Your task to perform on an android device: turn on showing notifications on the lock screen Image 0: 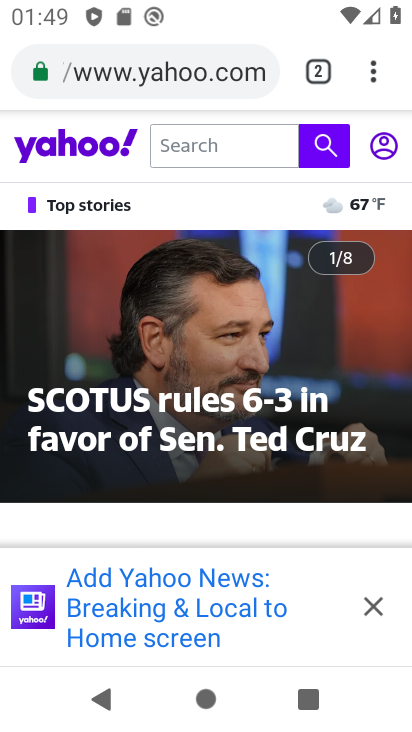
Step 0: press home button
Your task to perform on an android device: turn on showing notifications on the lock screen Image 1: 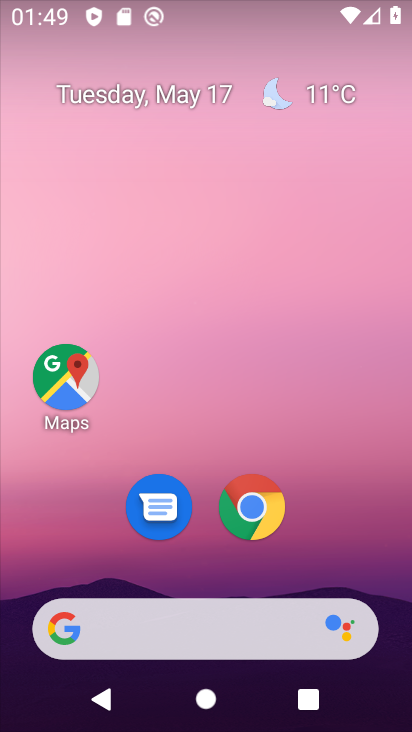
Step 1: drag from (195, 571) to (162, 161)
Your task to perform on an android device: turn on showing notifications on the lock screen Image 2: 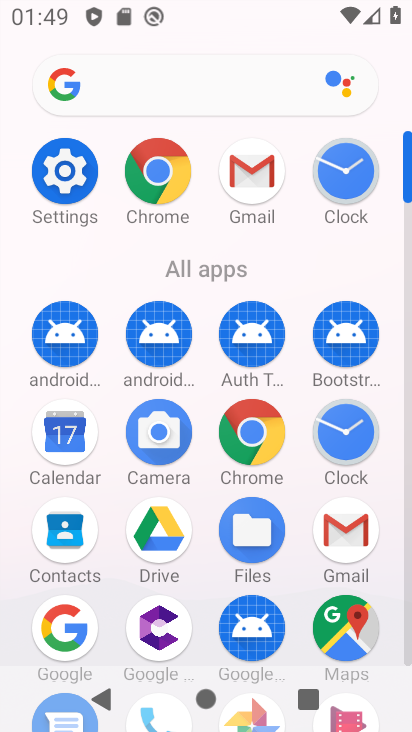
Step 2: click (83, 164)
Your task to perform on an android device: turn on showing notifications on the lock screen Image 3: 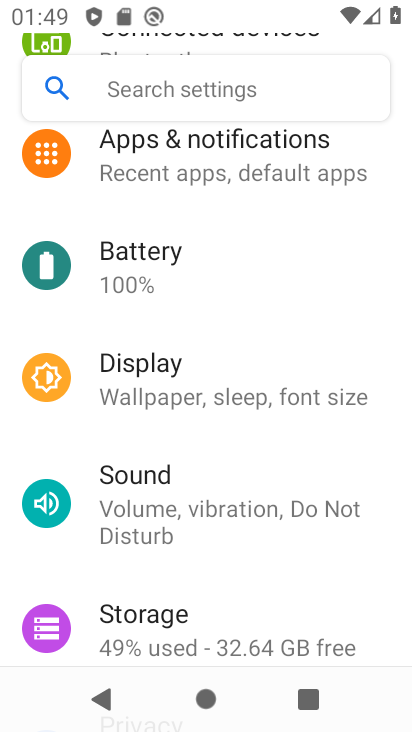
Step 3: click (252, 170)
Your task to perform on an android device: turn on showing notifications on the lock screen Image 4: 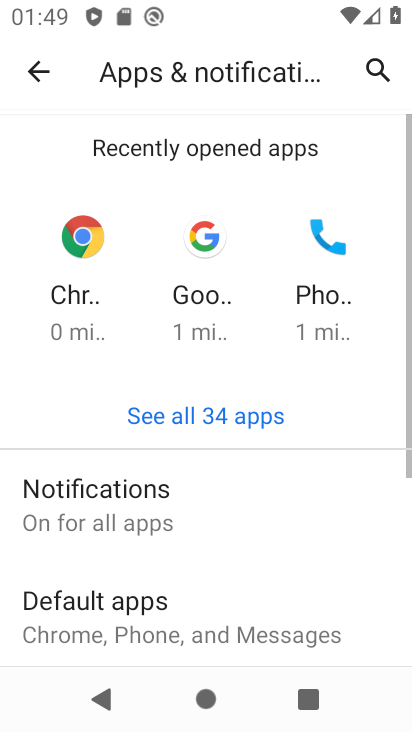
Step 4: drag from (134, 592) to (226, 177)
Your task to perform on an android device: turn on showing notifications on the lock screen Image 5: 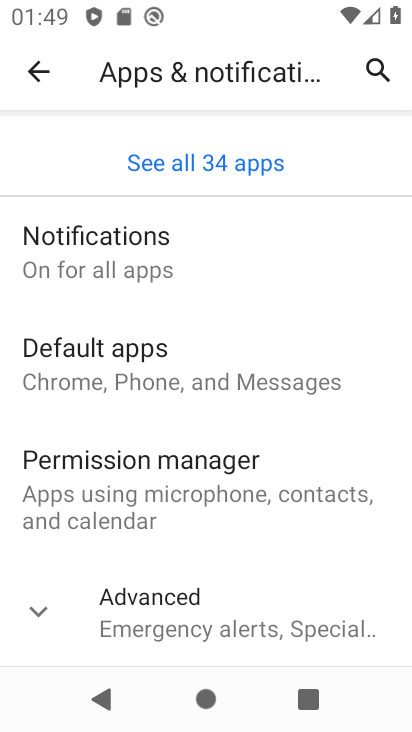
Step 5: click (185, 605)
Your task to perform on an android device: turn on showing notifications on the lock screen Image 6: 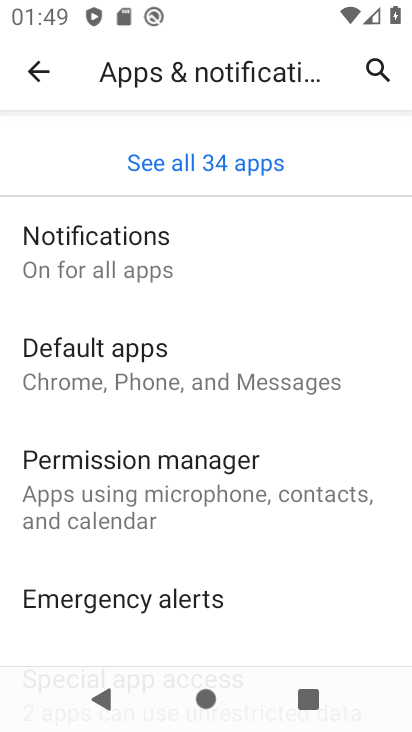
Step 6: click (151, 257)
Your task to perform on an android device: turn on showing notifications on the lock screen Image 7: 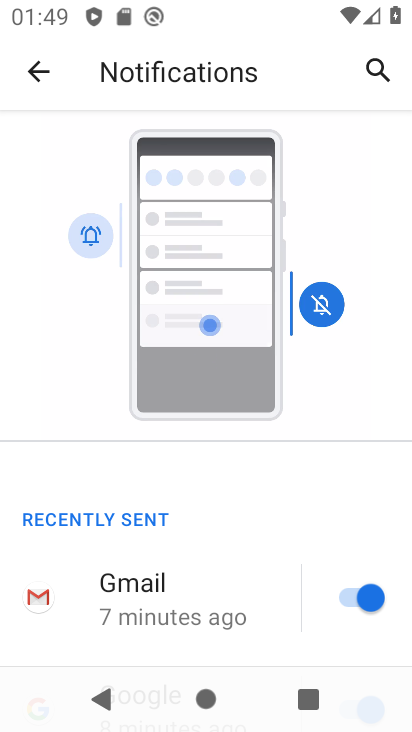
Step 7: drag from (161, 541) to (193, 135)
Your task to perform on an android device: turn on showing notifications on the lock screen Image 8: 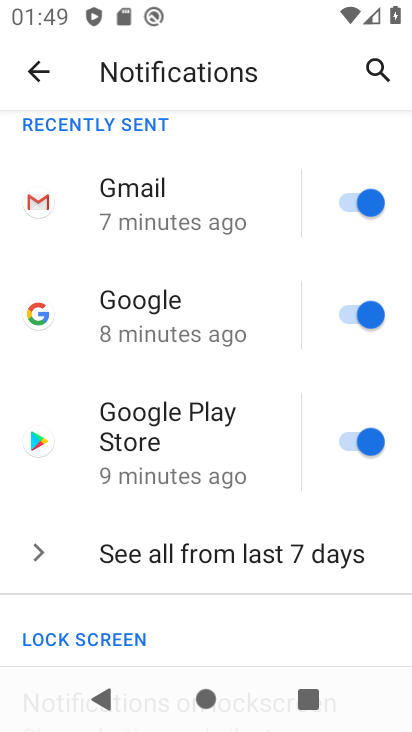
Step 8: click (120, 626)
Your task to perform on an android device: turn on showing notifications on the lock screen Image 9: 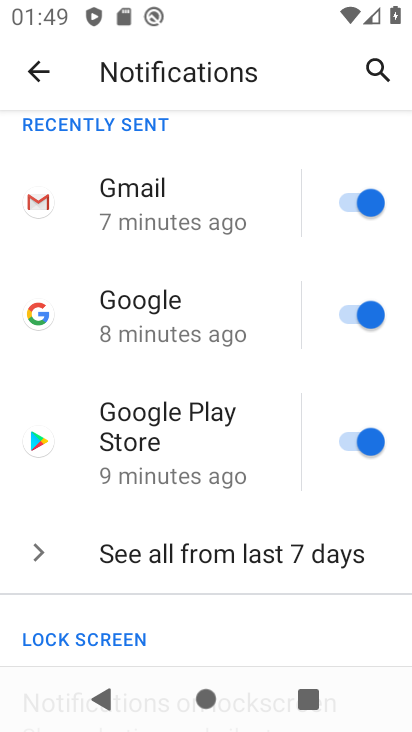
Step 9: drag from (120, 626) to (197, 180)
Your task to perform on an android device: turn on showing notifications on the lock screen Image 10: 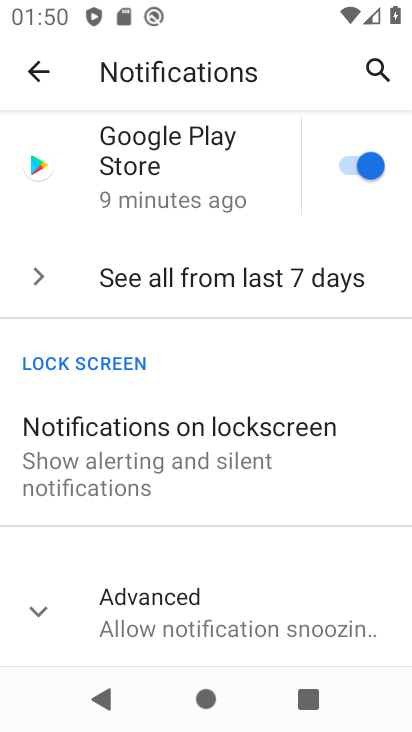
Step 10: click (168, 395)
Your task to perform on an android device: turn on showing notifications on the lock screen Image 11: 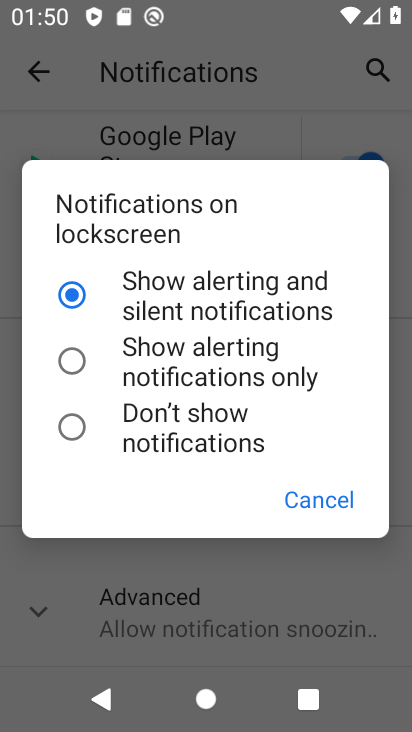
Step 11: task complete